Your task to perform on an android device: show emergency info Image 0: 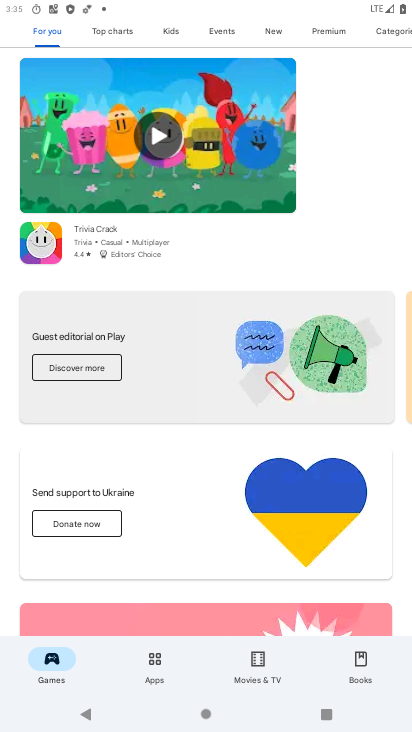
Step 0: press home button
Your task to perform on an android device: show emergency info Image 1: 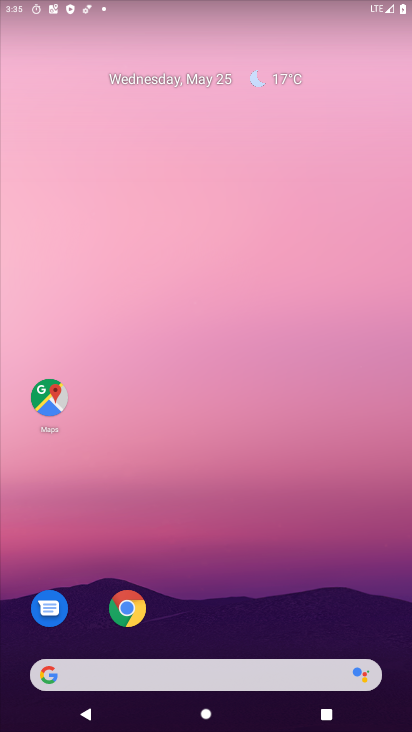
Step 1: drag from (249, 566) to (247, 139)
Your task to perform on an android device: show emergency info Image 2: 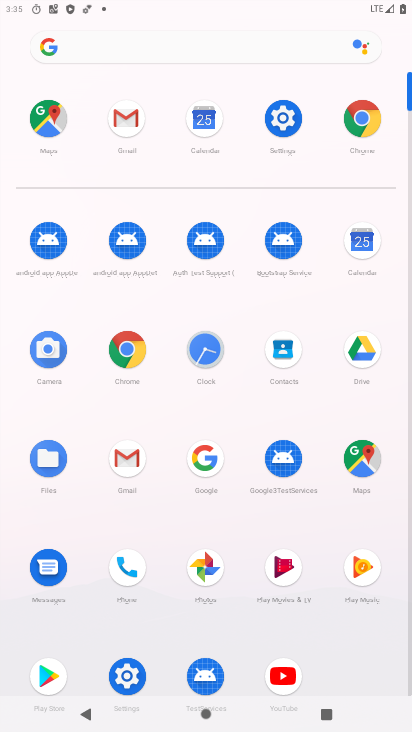
Step 2: click (276, 117)
Your task to perform on an android device: show emergency info Image 3: 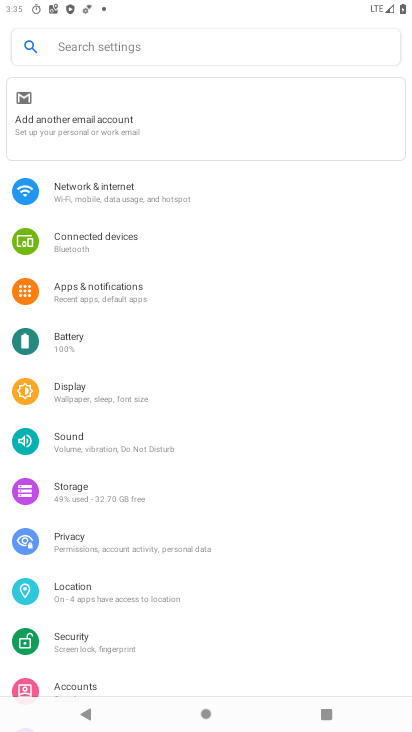
Step 3: drag from (164, 563) to (246, 114)
Your task to perform on an android device: show emergency info Image 4: 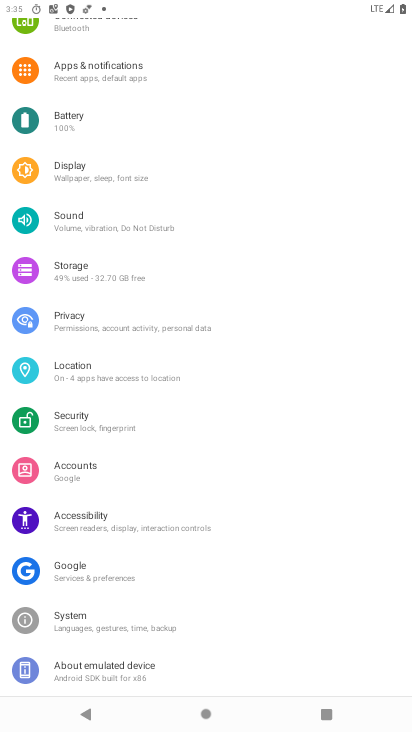
Step 4: click (103, 678)
Your task to perform on an android device: show emergency info Image 5: 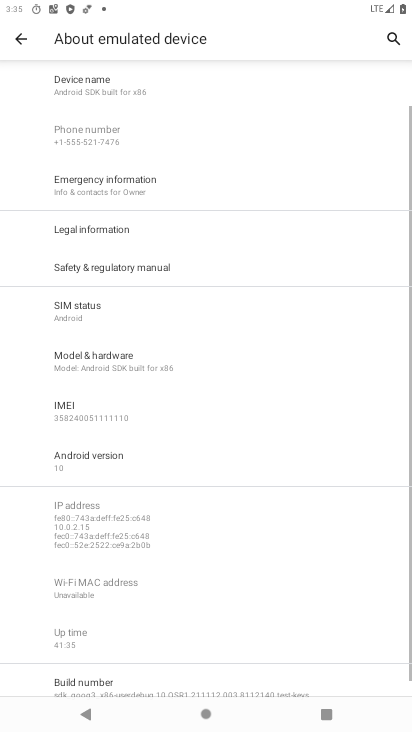
Step 5: drag from (132, 608) to (132, 106)
Your task to perform on an android device: show emergency info Image 6: 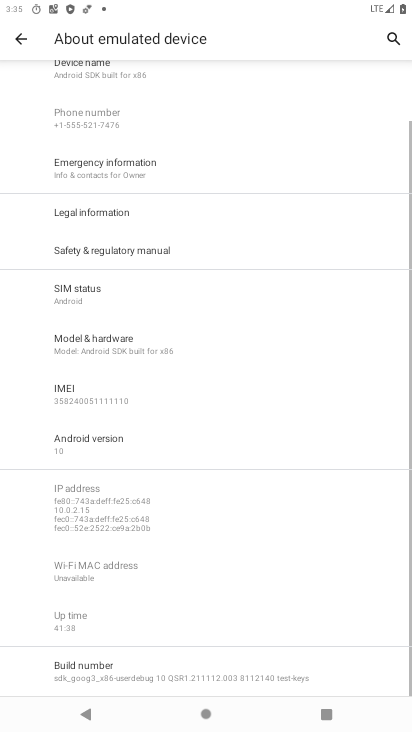
Step 6: click (132, 175)
Your task to perform on an android device: show emergency info Image 7: 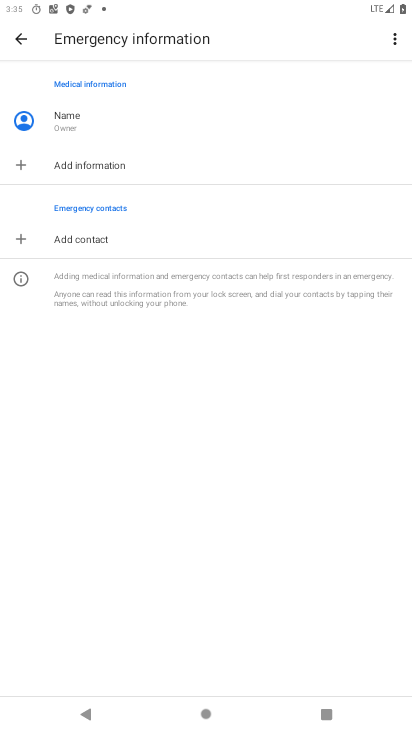
Step 7: task complete